Your task to perform on an android device: Open Google Maps and go to "Timeline" Image 0: 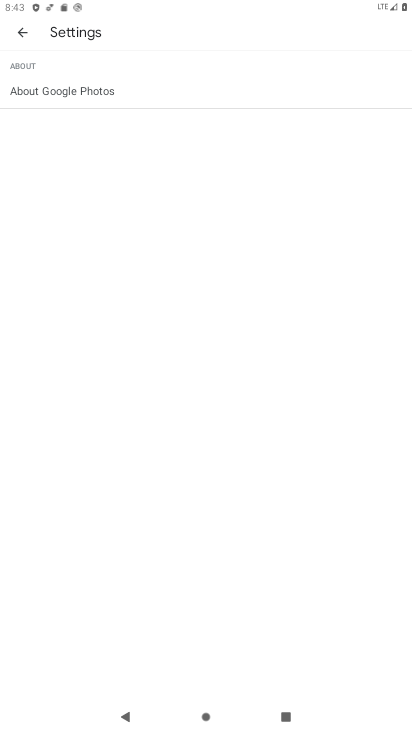
Step 0: press home button
Your task to perform on an android device: Open Google Maps and go to "Timeline" Image 1: 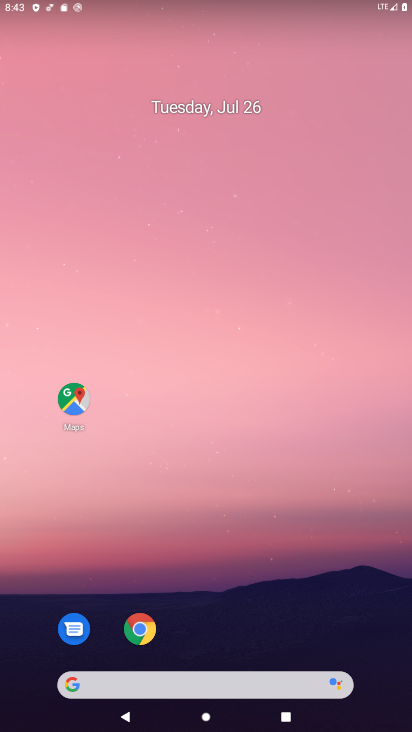
Step 1: drag from (215, 658) to (189, 96)
Your task to perform on an android device: Open Google Maps and go to "Timeline" Image 2: 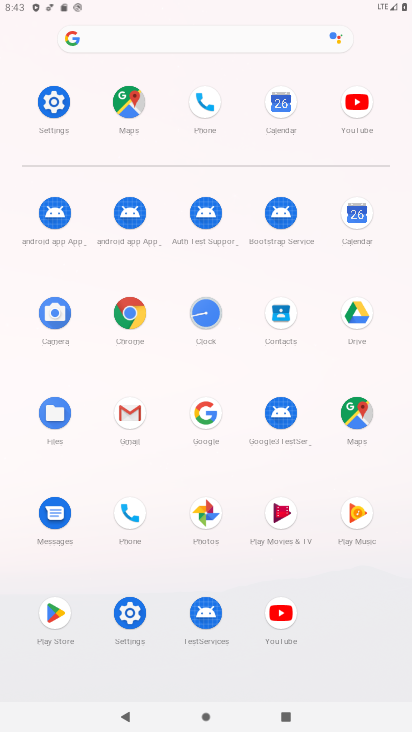
Step 2: click (346, 412)
Your task to perform on an android device: Open Google Maps and go to "Timeline" Image 3: 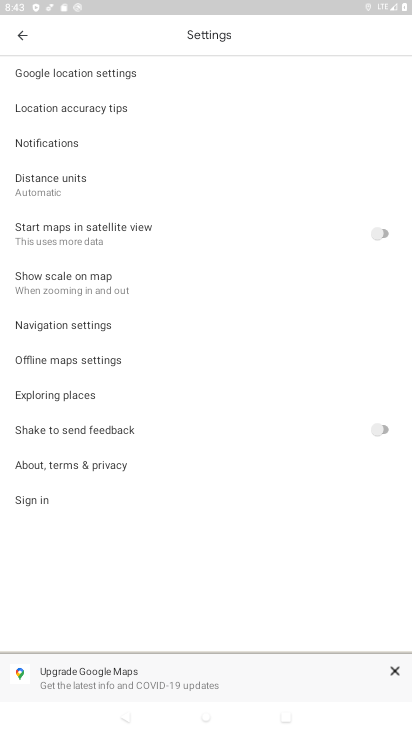
Step 3: click (21, 33)
Your task to perform on an android device: Open Google Maps and go to "Timeline" Image 4: 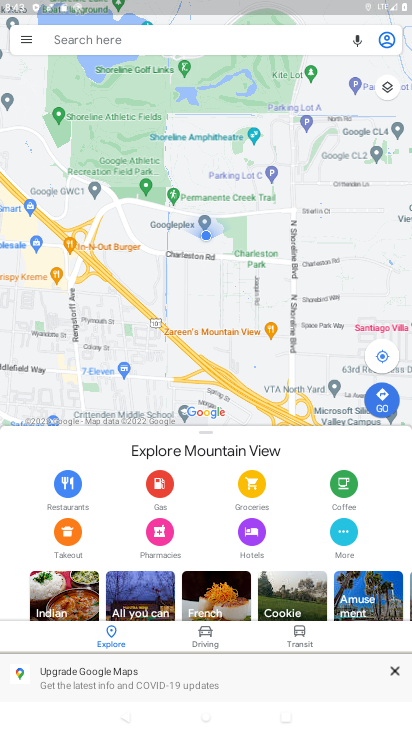
Step 4: click (21, 33)
Your task to perform on an android device: Open Google Maps and go to "Timeline" Image 5: 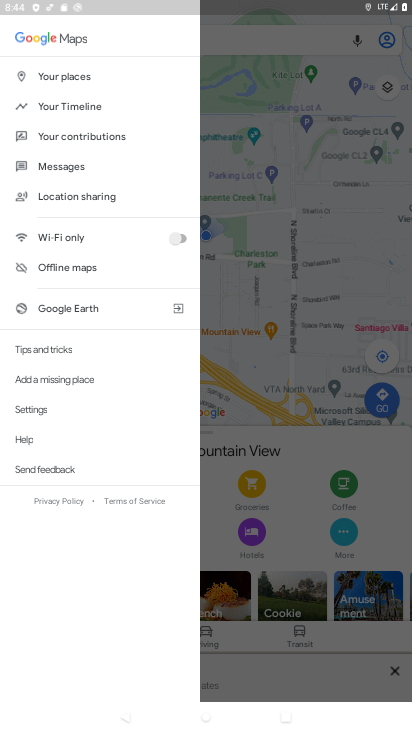
Step 5: click (65, 100)
Your task to perform on an android device: Open Google Maps and go to "Timeline" Image 6: 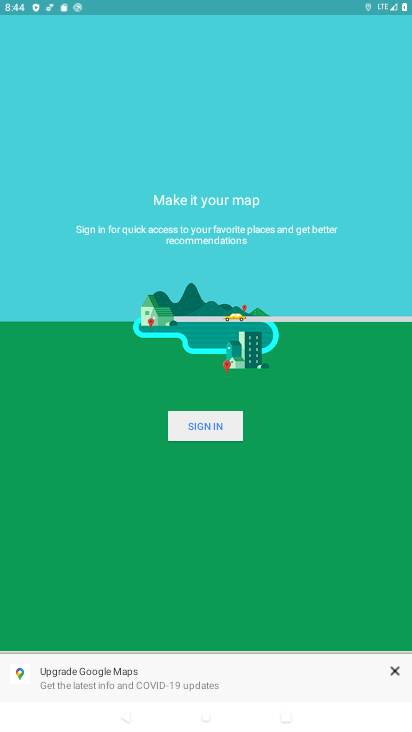
Step 6: task complete